Your task to perform on an android device: turn on priority inbox in the gmail app Image 0: 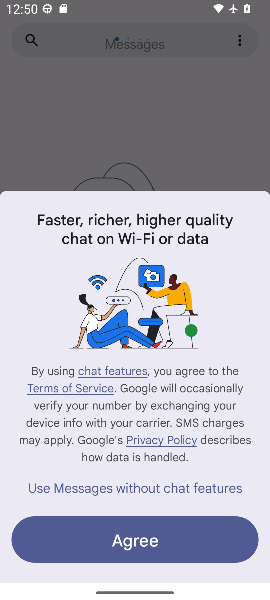
Step 0: press back button
Your task to perform on an android device: turn on priority inbox in the gmail app Image 1: 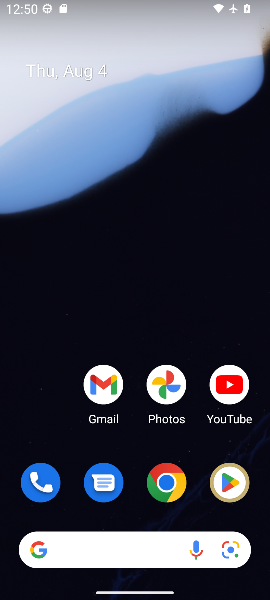
Step 1: drag from (135, 473) to (136, 146)
Your task to perform on an android device: turn on priority inbox in the gmail app Image 2: 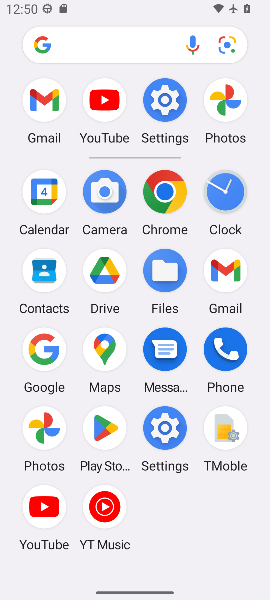
Step 2: click (39, 127)
Your task to perform on an android device: turn on priority inbox in the gmail app Image 3: 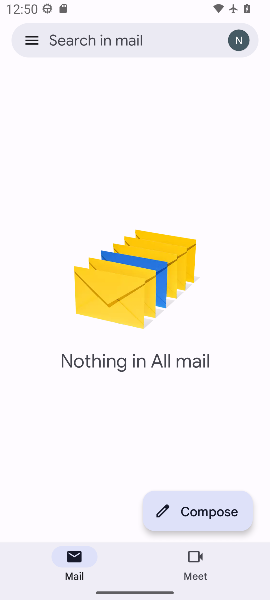
Step 3: click (33, 50)
Your task to perform on an android device: turn on priority inbox in the gmail app Image 4: 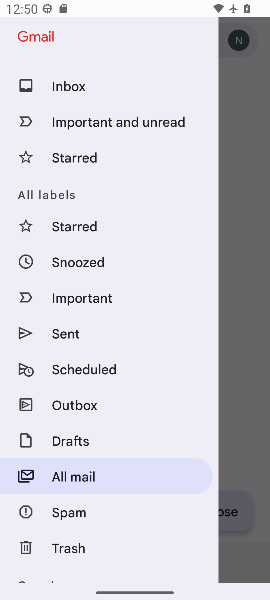
Step 4: drag from (97, 495) to (113, 176)
Your task to perform on an android device: turn on priority inbox in the gmail app Image 5: 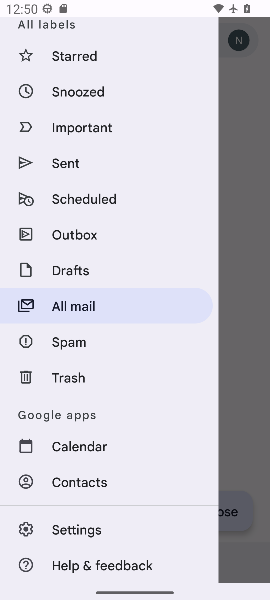
Step 5: click (62, 533)
Your task to perform on an android device: turn on priority inbox in the gmail app Image 6: 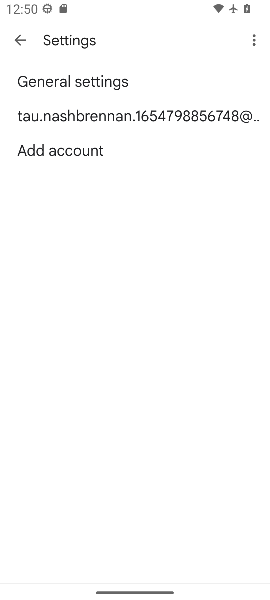
Step 6: click (121, 123)
Your task to perform on an android device: turn on priority inbox in the gmail app Image 7: 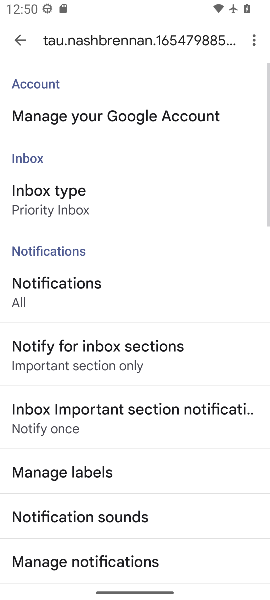
Step 7: click (100, 203)
Your task to perform on an android device: turn on priority inbox in the gmail app Image 8: 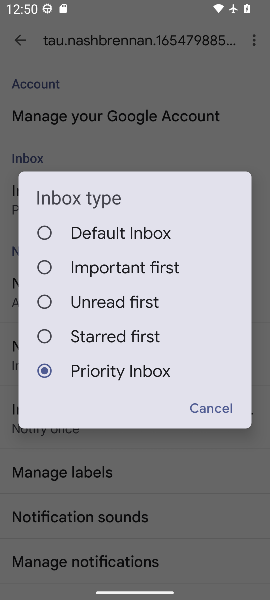
Step 8: task complete